Your task to perform on an android device: change the clock display to analog Image 0: 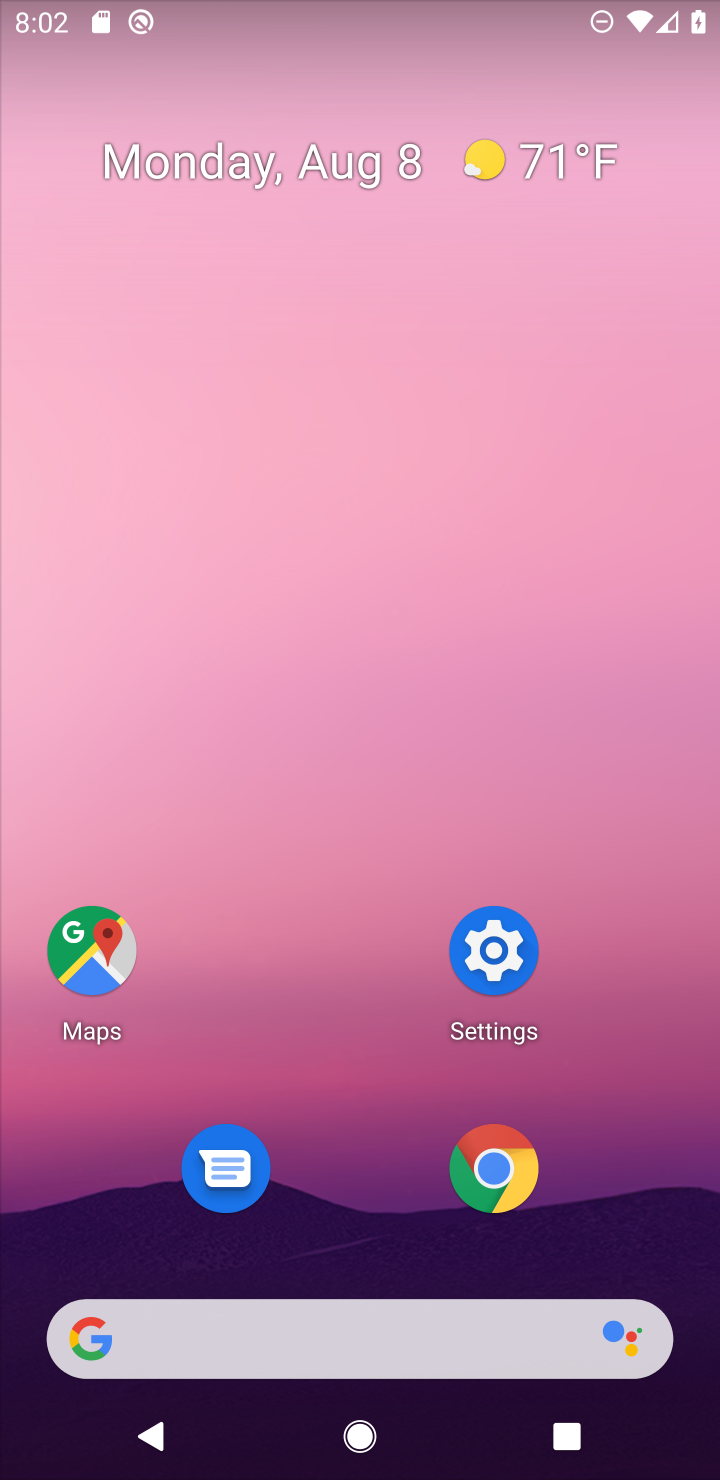
Step 0: drag from (339, 1322) to (584, 358)
Your task to perform on an android device: change the clock display to analog Image 1: 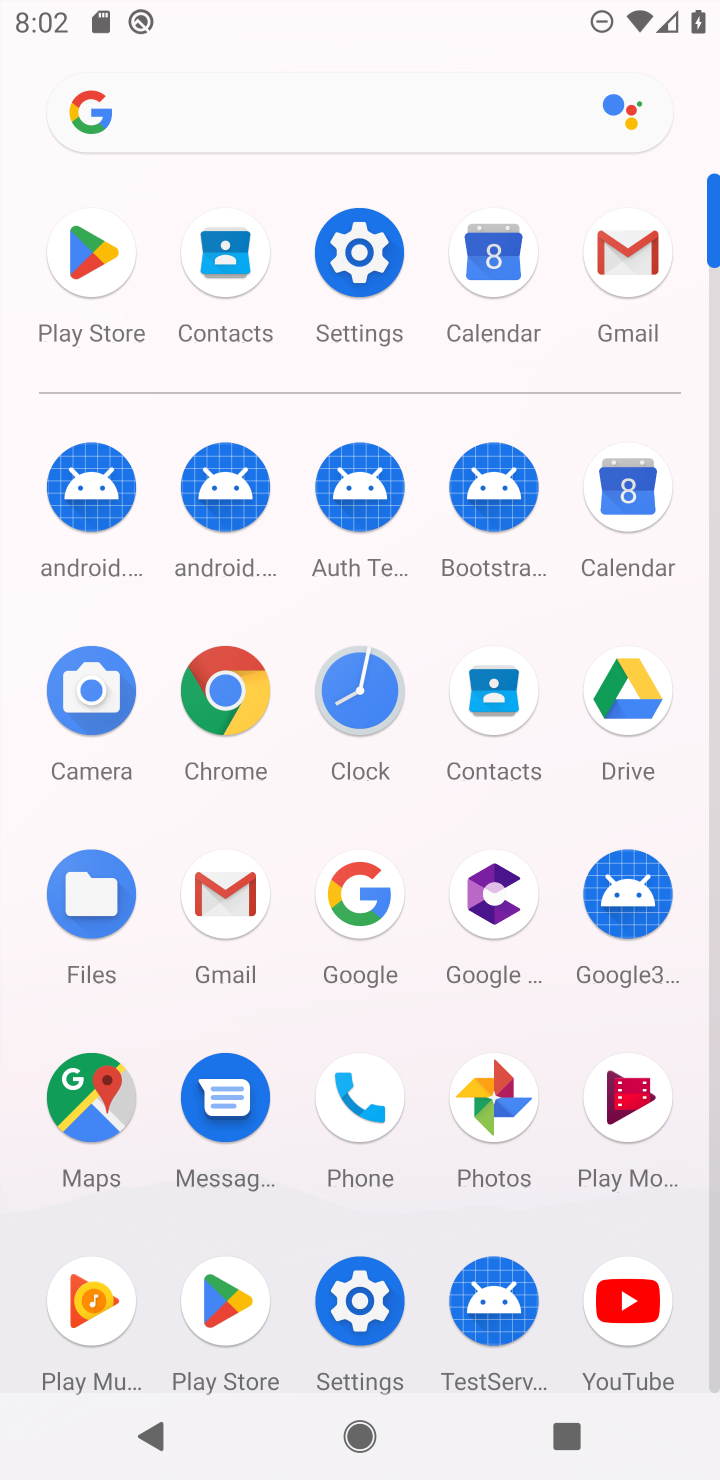
Step 1: click (358, 705)
Your task to perform on an android device: change the clock display to analog Image 2: 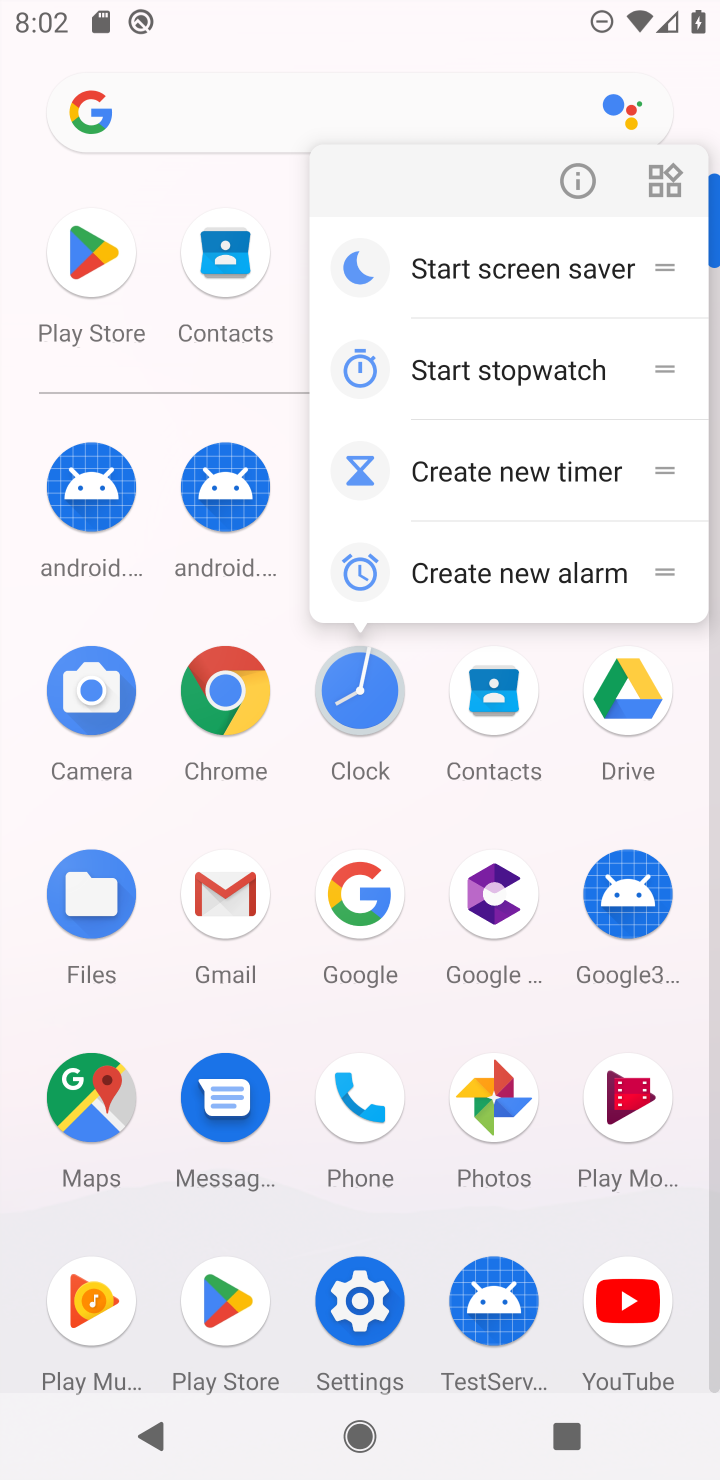
Step 2: click (356, 703)
Your task to perform on an android device: change the clock display to analog Image 3: 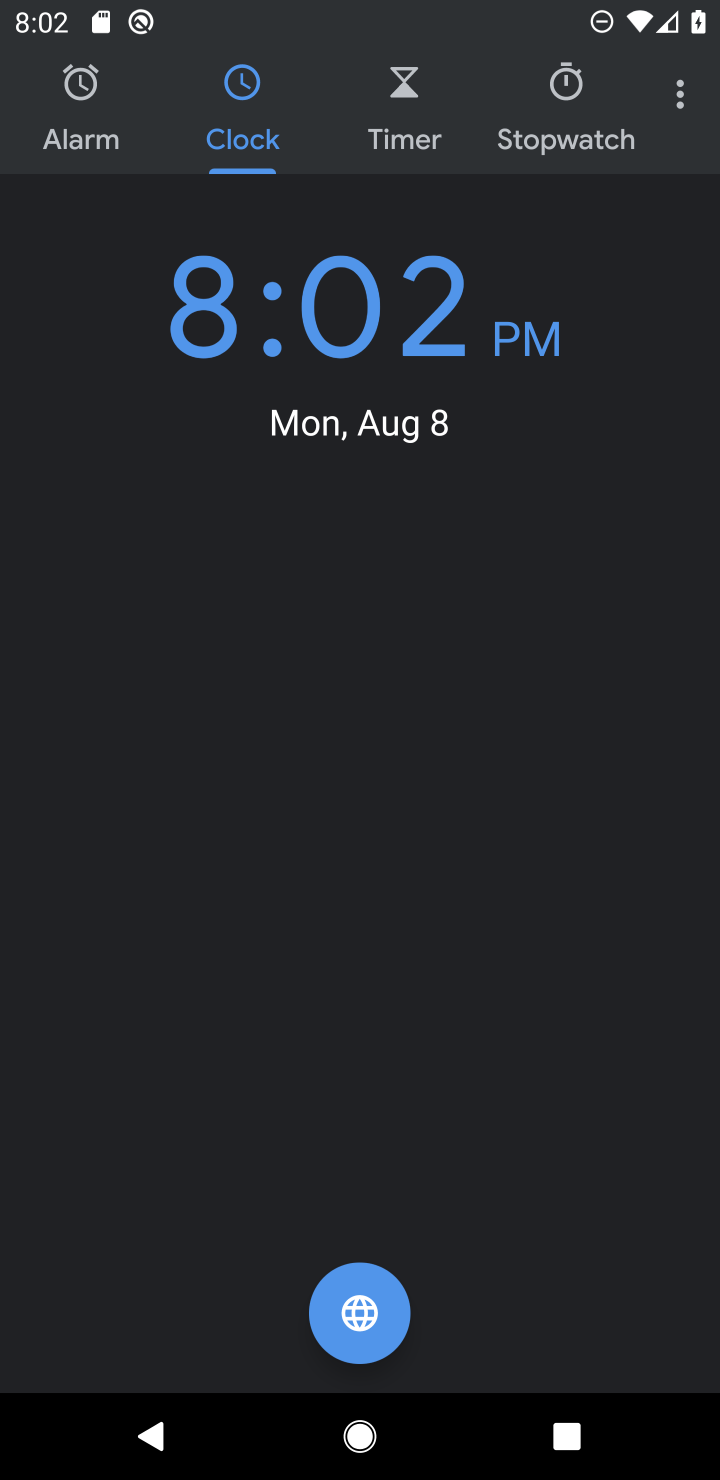
Step 3: click (675, 87)
Your task to perform on an android device: change the clock display to analog Image 4: 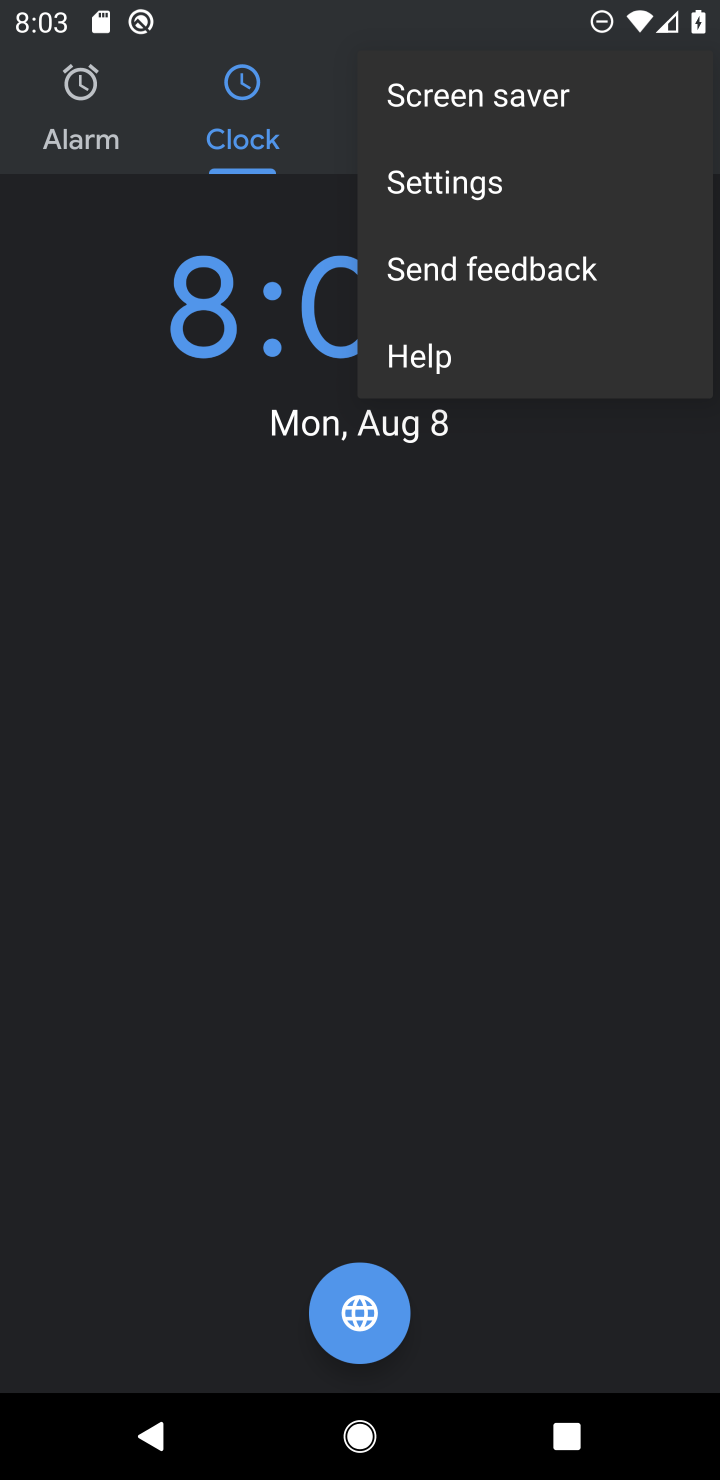
Step 4: click (467, 194)
Your task to perform on an android device: change the clock display to analog Image 5: 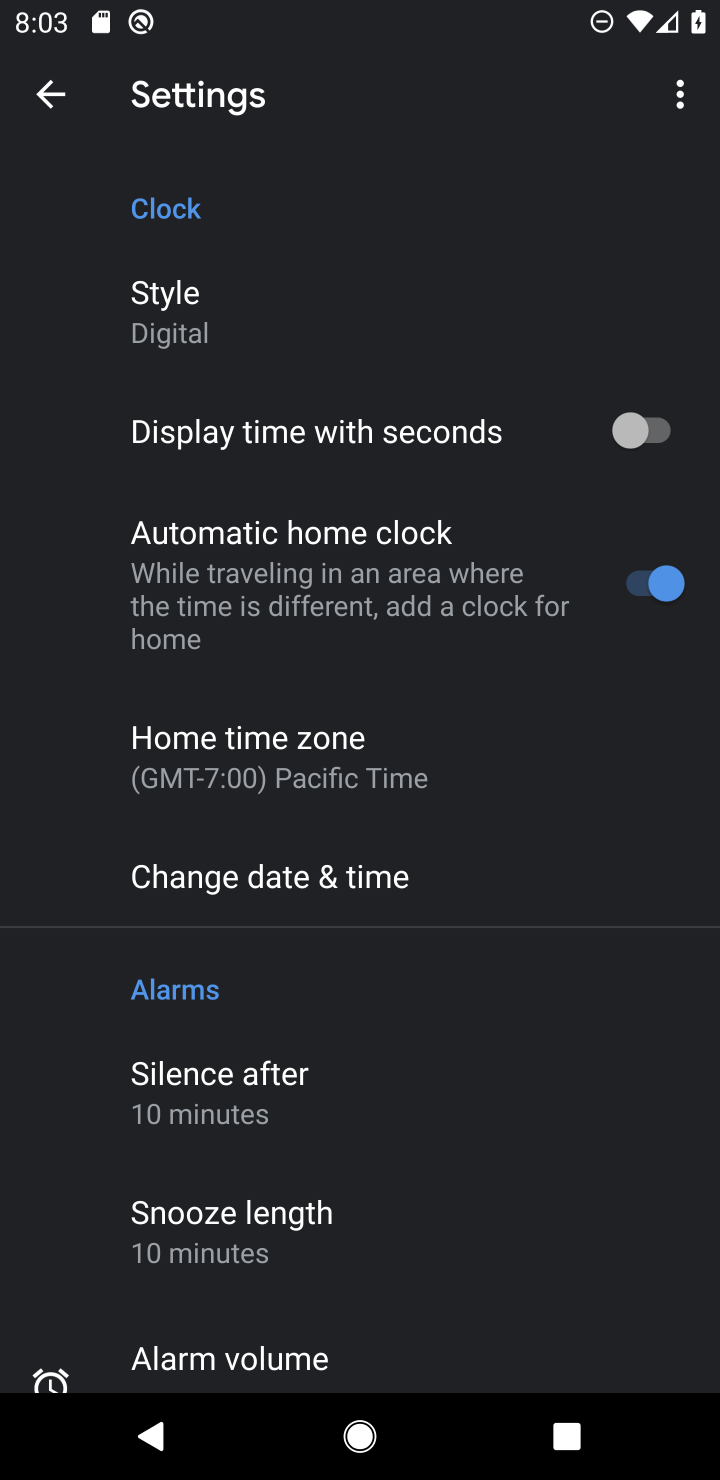
Step 5: click (194, 336)
Your task to perform on an android device: change the clock display to analog Image 6: 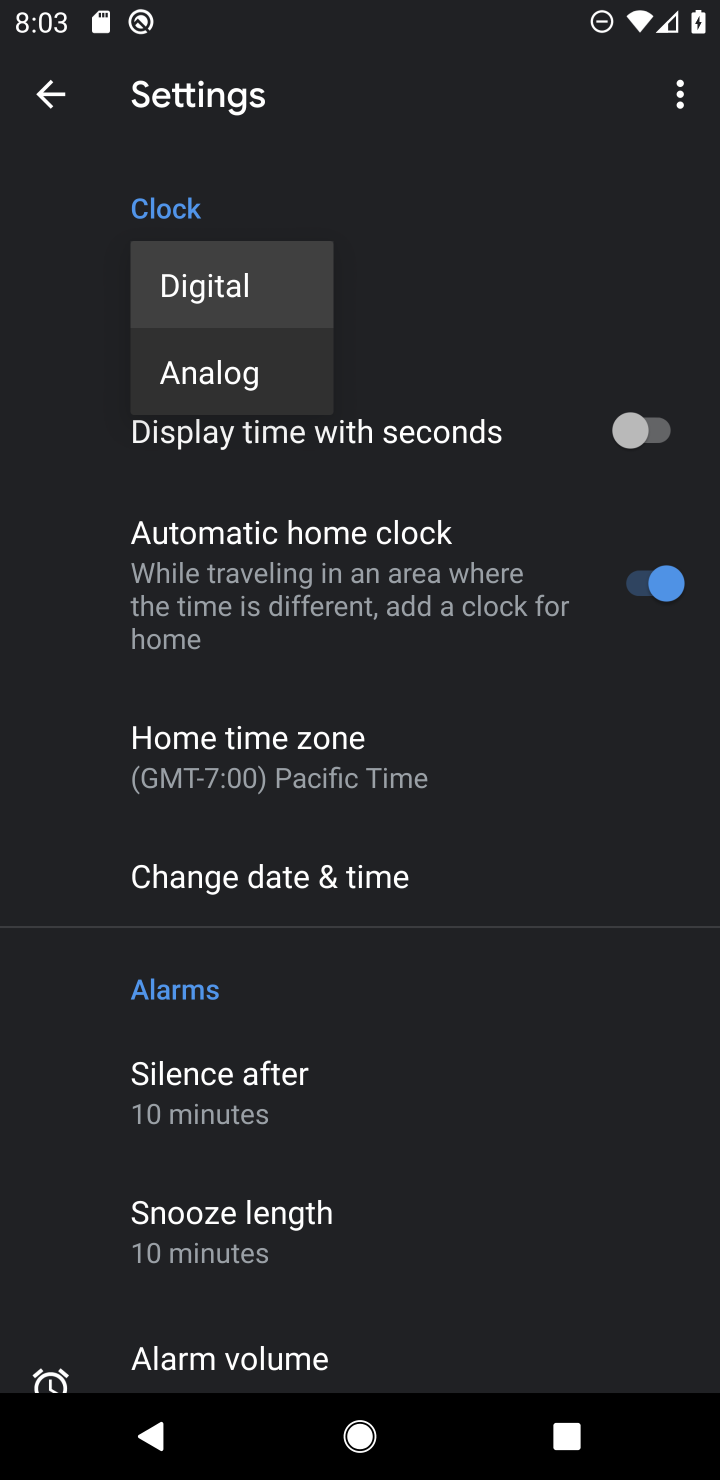
Step 6: click (236, 361)
Your task to perform on an android device: change the clock display to analog Image 7: 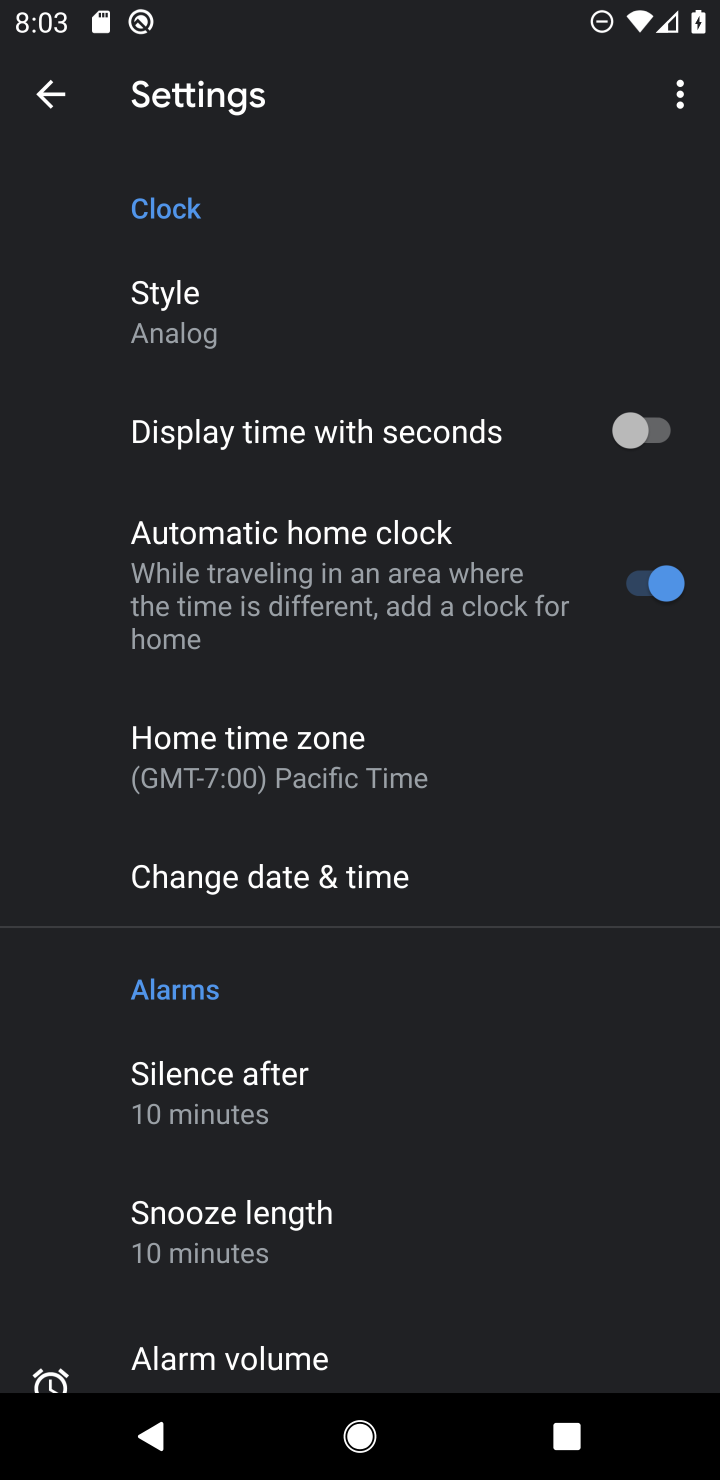
Step 7: task complete